Your task to perform on an android device: set the timer Image 0: 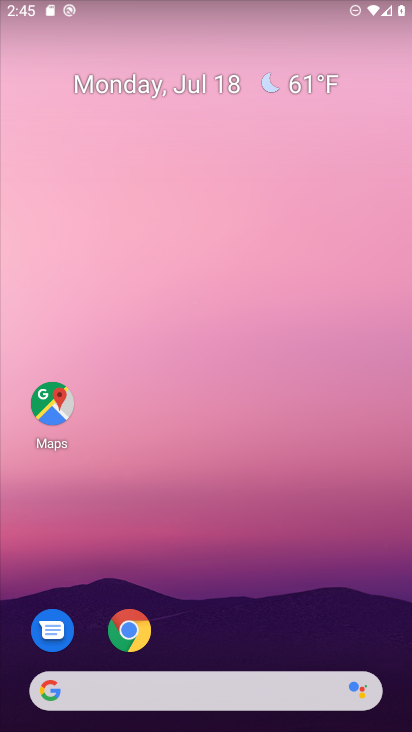
Step 0: drag from (219, 631) to (280, 35)
Your task to perform on an android device: set the timer Image 1: 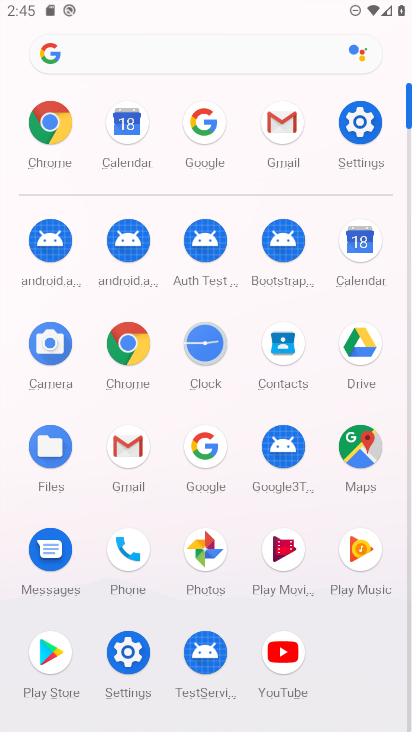
Step 1: click (367, 127)
Your task to perform on an android device: set the timer Image 2: 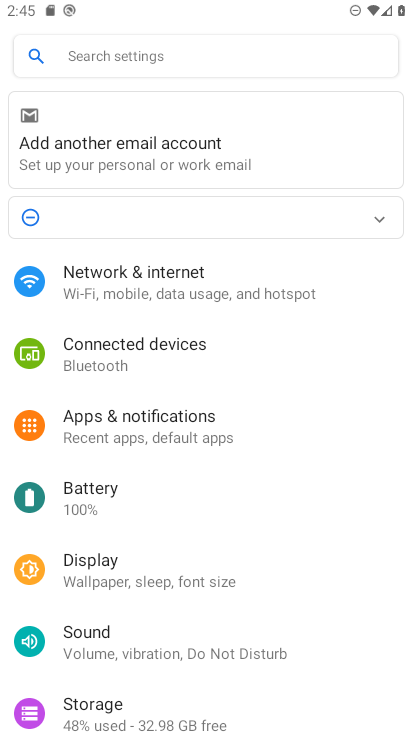
Step 2: press home button
Your task to perform on an android device: set the timer Image 3: 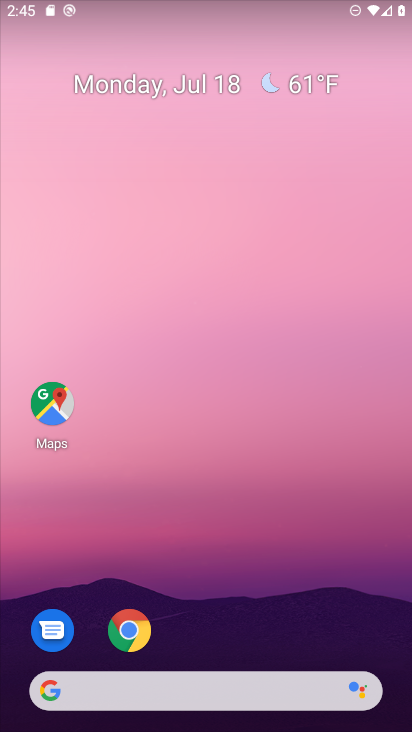
Step 3: drag from (291, 628) to (299, 70)
Your task to perform on an android device: set the timer Image 4: 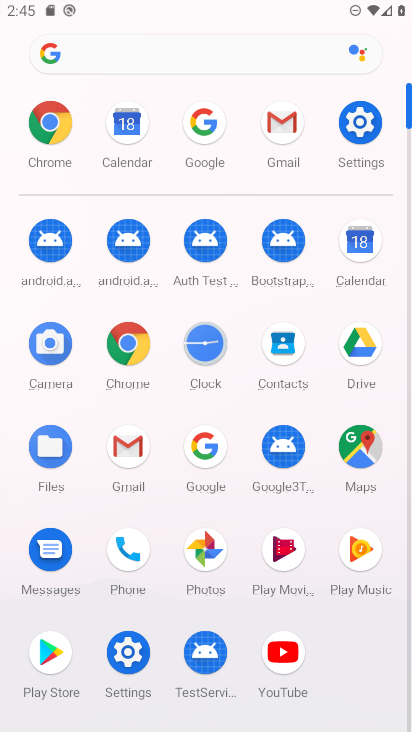
Step 4: click (209, 349)
Your task to perform on an android device: set the timer Image 5: 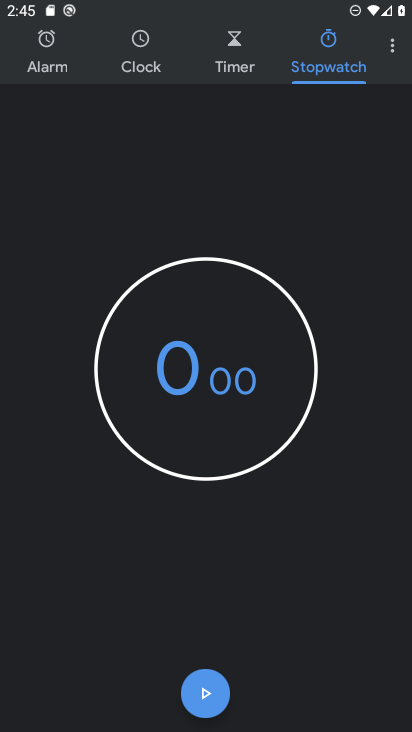
Step 5: click (236, 50)
Your task to perform on an android device: set the timer Image 6: 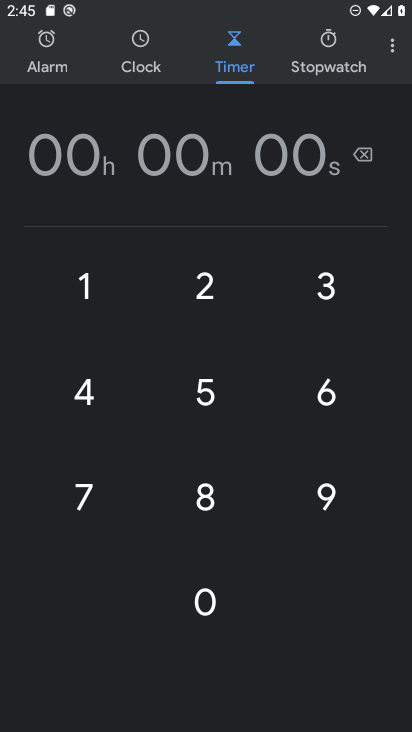
Step 6: task complete